Your task to perform on an android device: Go to Android settings Image 0: 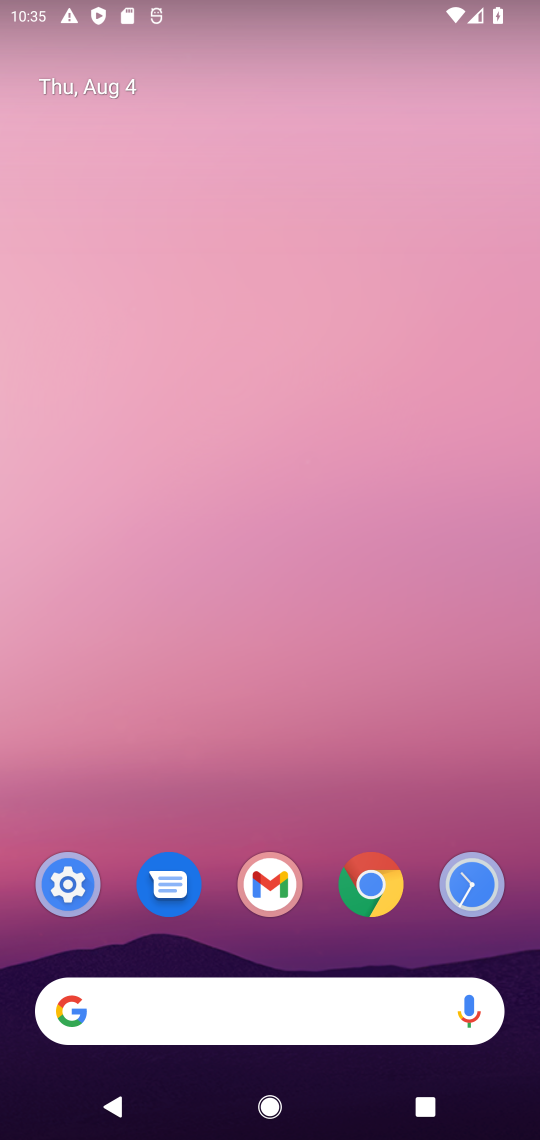
Step 0: click (37, 846)
Your task to perform on an android device: Go to Android settings Image 1: 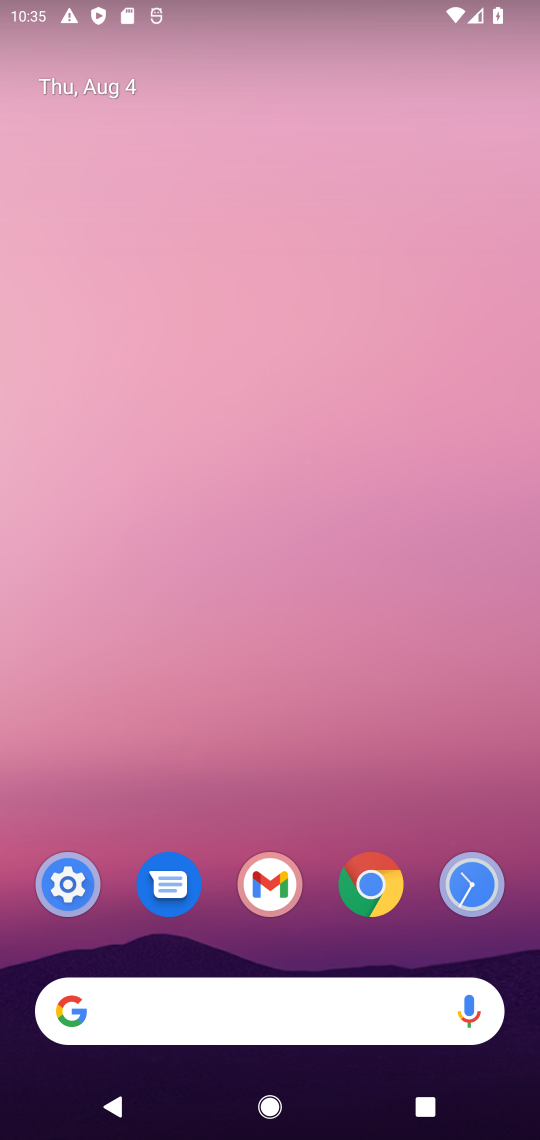
Step 1: click (58, 876)
Your task to perform on an android device: Go to Android settings Image 2: 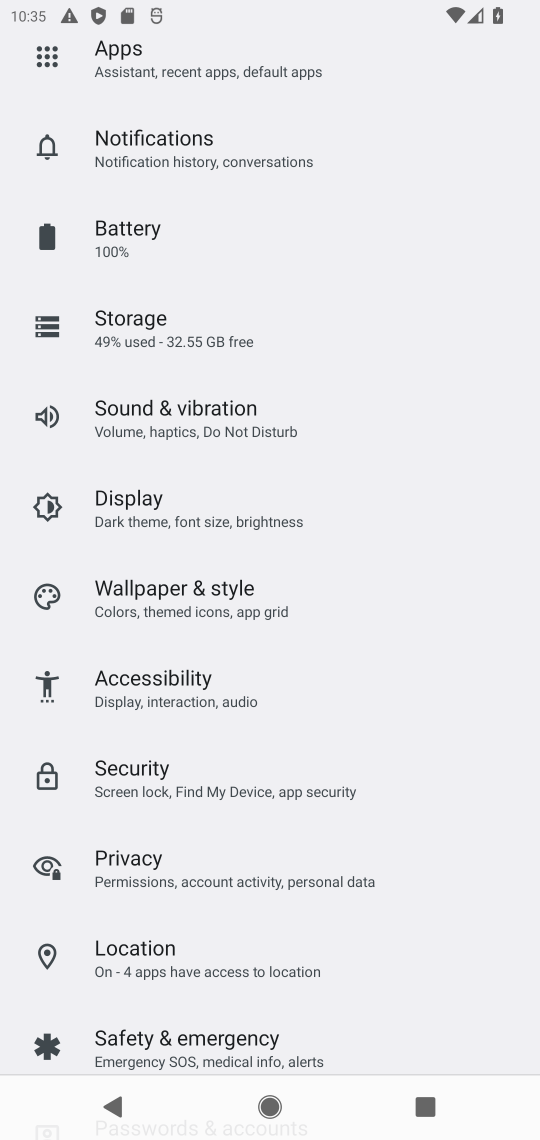
Step 2: task complete